Your task to perform on an android device: What's the news this week? Image 0: 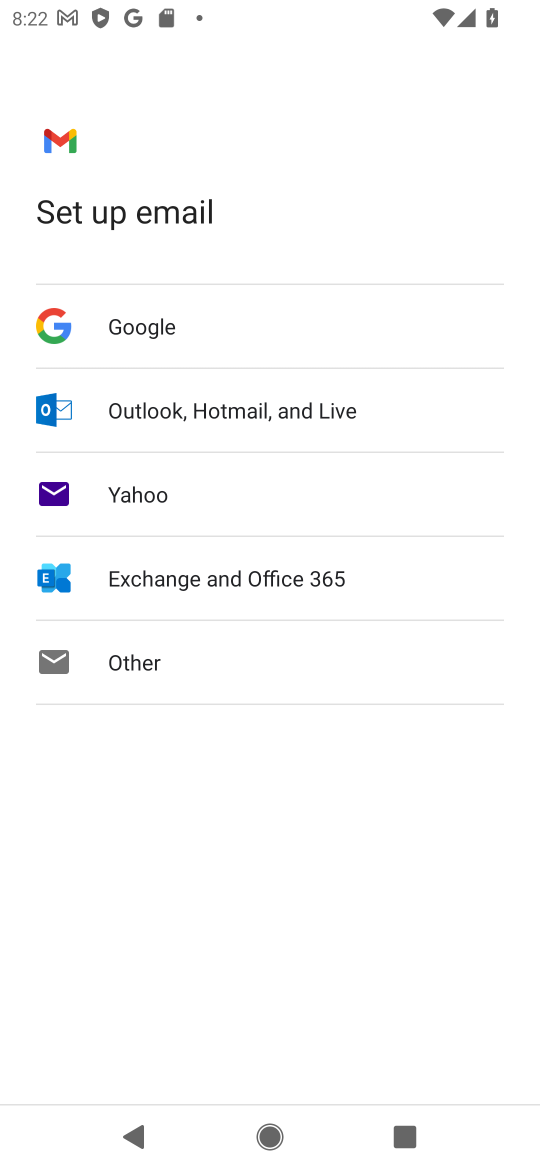
Step 0: press home button
Your task to perform on an android device: What's the news this week? Image 1: 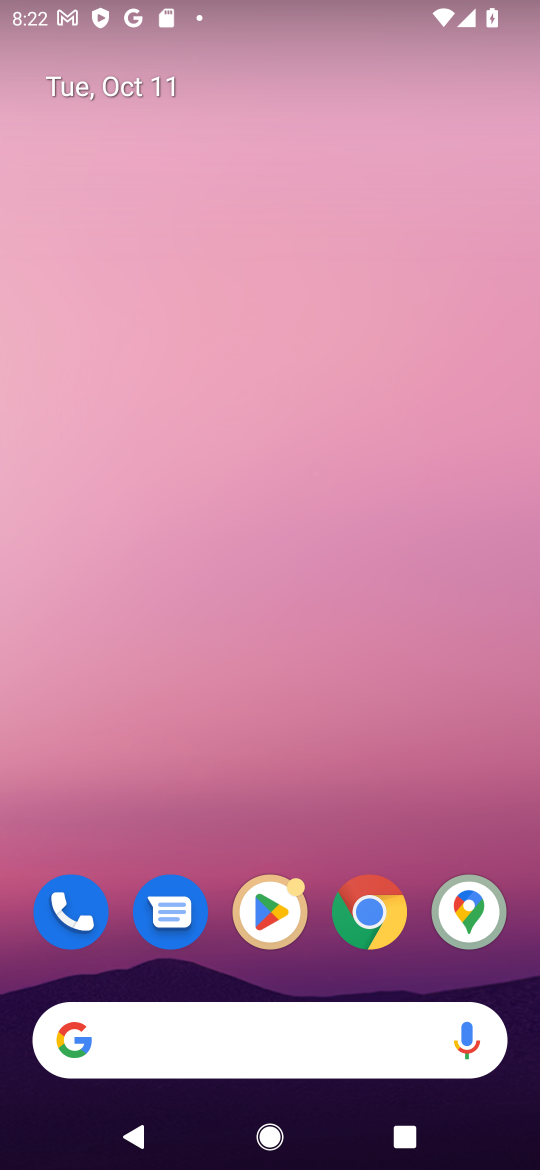
Step 1: click (378, 915)
Your task to perform on an android device: What's the news this week? Image 2: 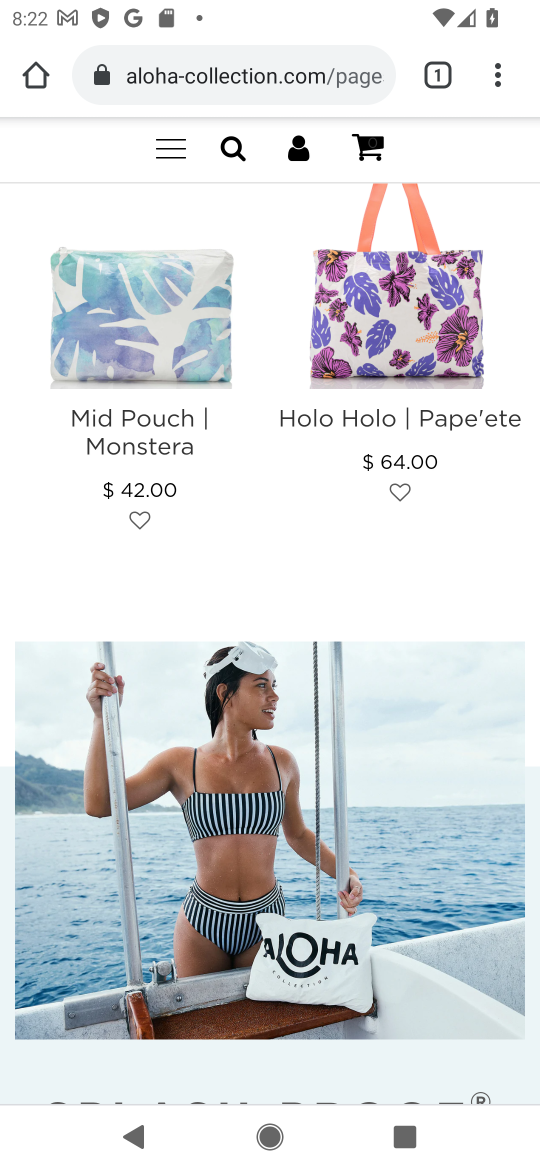
Step 2: click (213, 52)
Your task to perform on an android device: What's the news this week? Image 3: 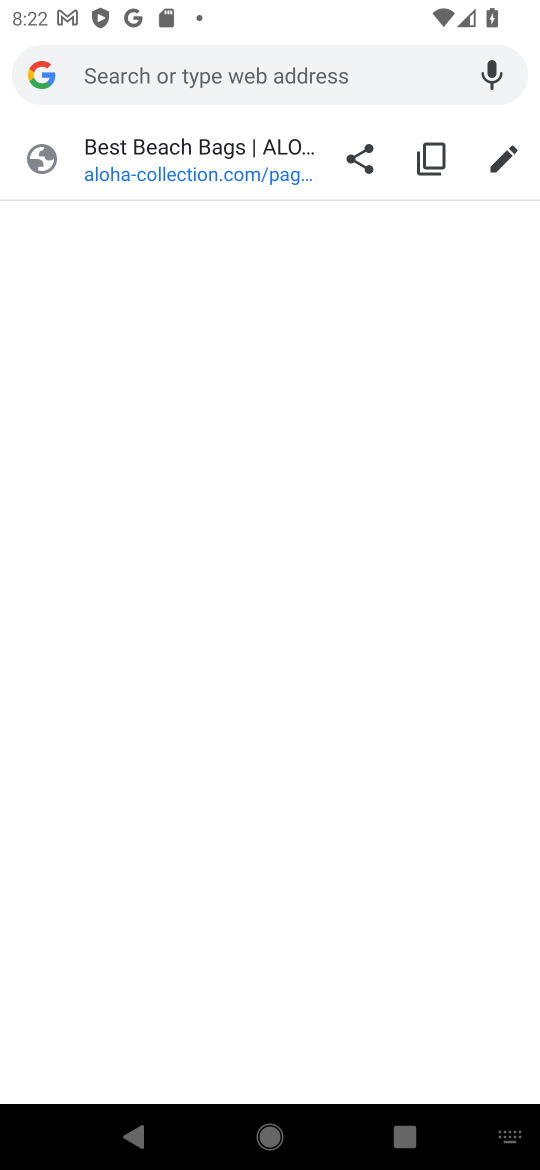
Step 3: type "news this week?"
Your task to perform on an android device: What's the news this week? Image 4: 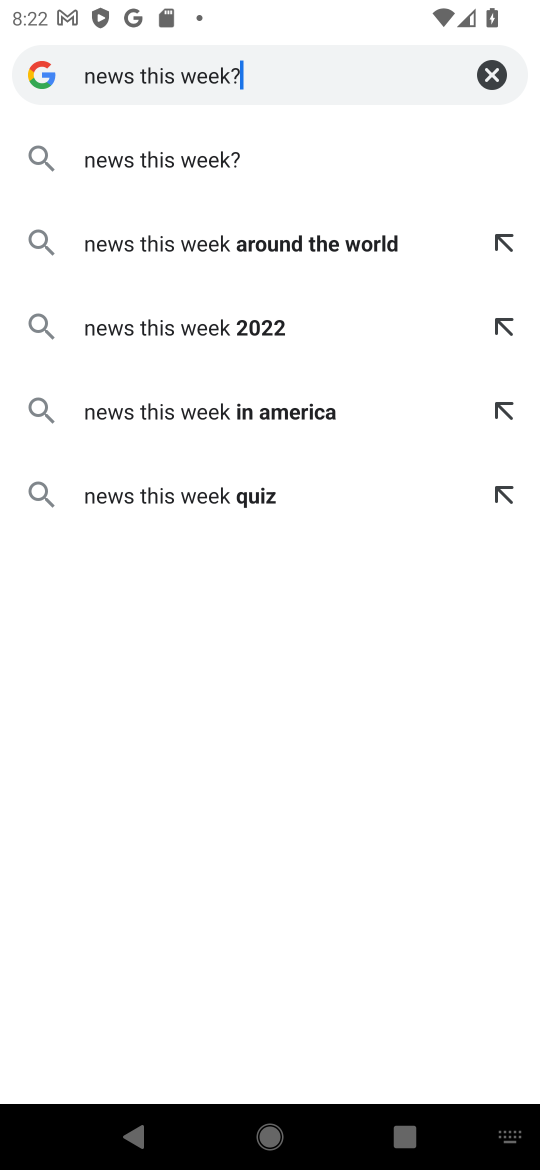
Step 4: click (184, 154)
Your task to perform on an android device: What's the news this week? Image 5: 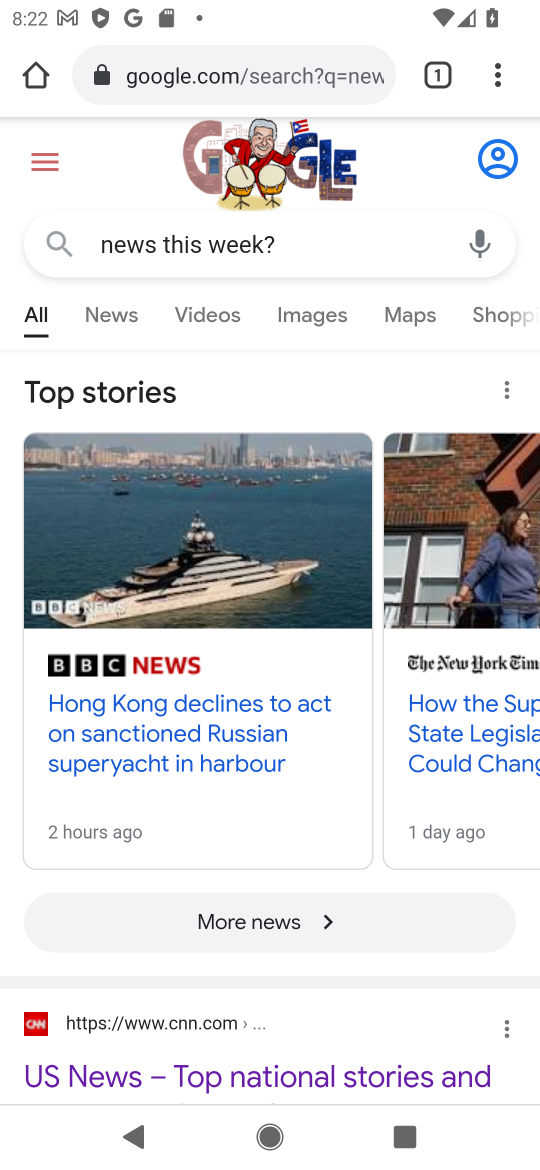
Step 5: drag from (384, 954) to (375, 276)
Your task to perform on an android device: What's the news this week? Image 6: 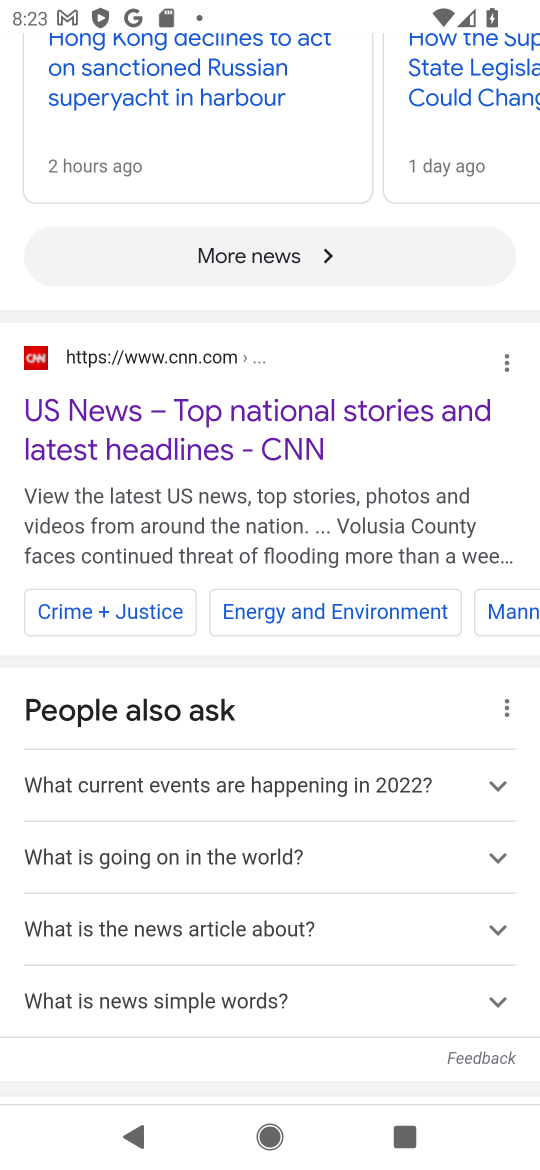
Step 6: drag from (179, 287) to (181, 633)
Your task to perform on an android device: What's the news this week? Image 7: 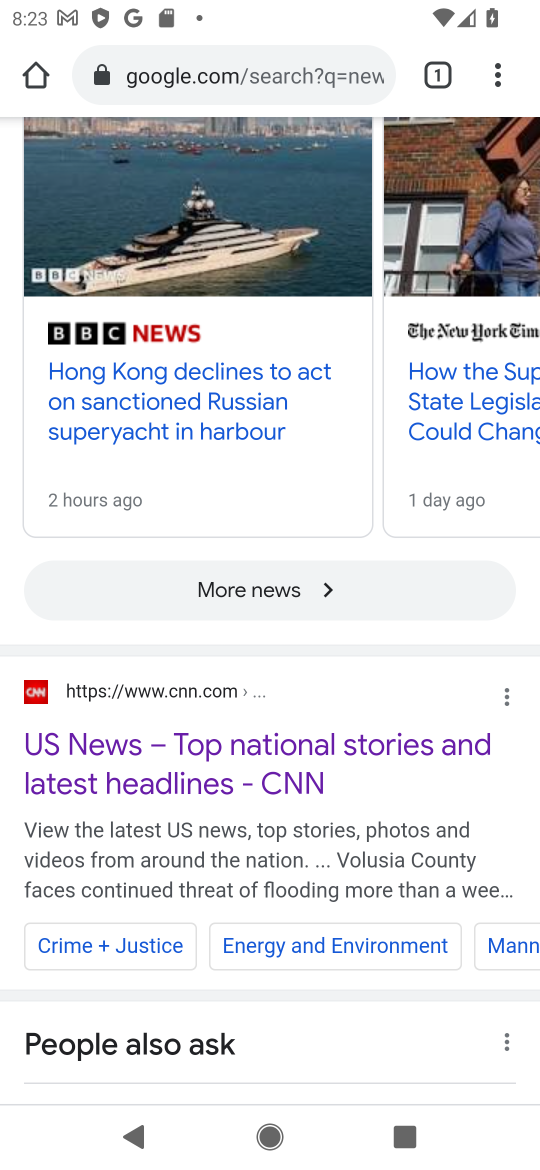
Step 7: click (170, 375)
Your task to perform on an android device: What's the news this week? Image 8: 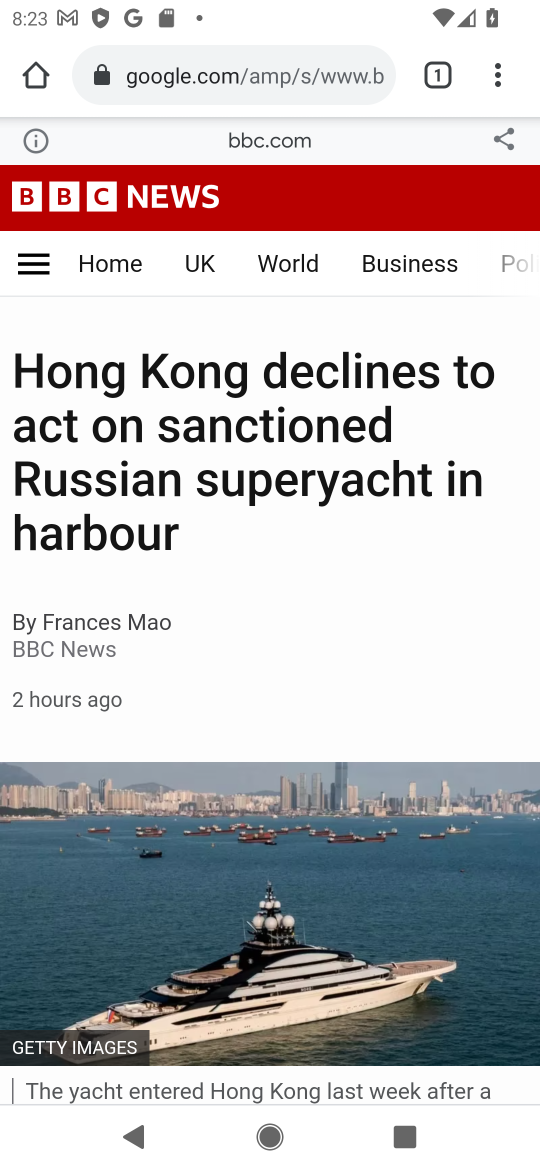
Step 8: task complete